Your task to perform on an android device: turn on notifications settings in the gmail app Image 0: 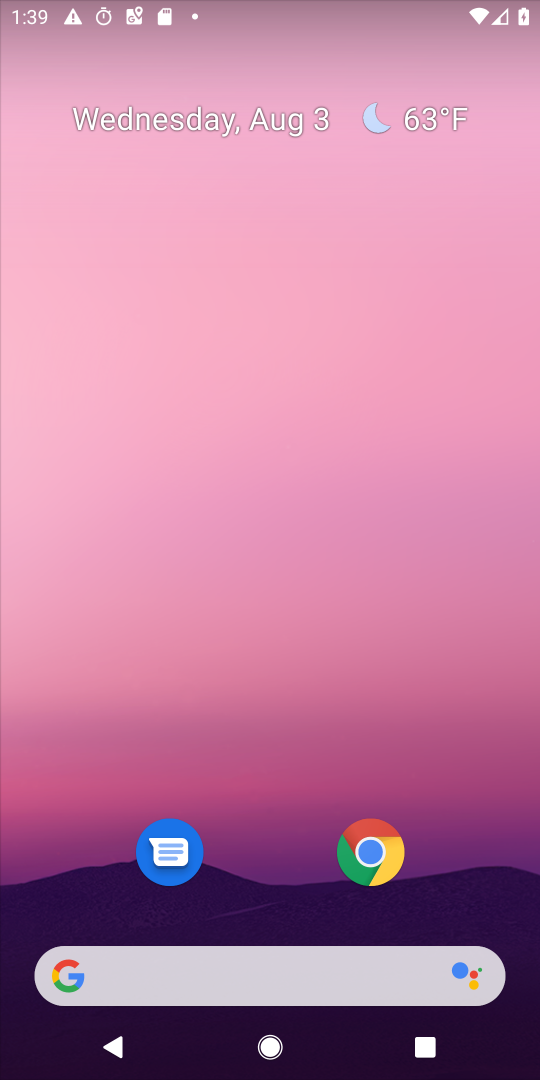
Step 0: drag from (475, 806) to (282, 57)
Your task to perform on an android device: turn on notifications settings in the gmail app Image 1: 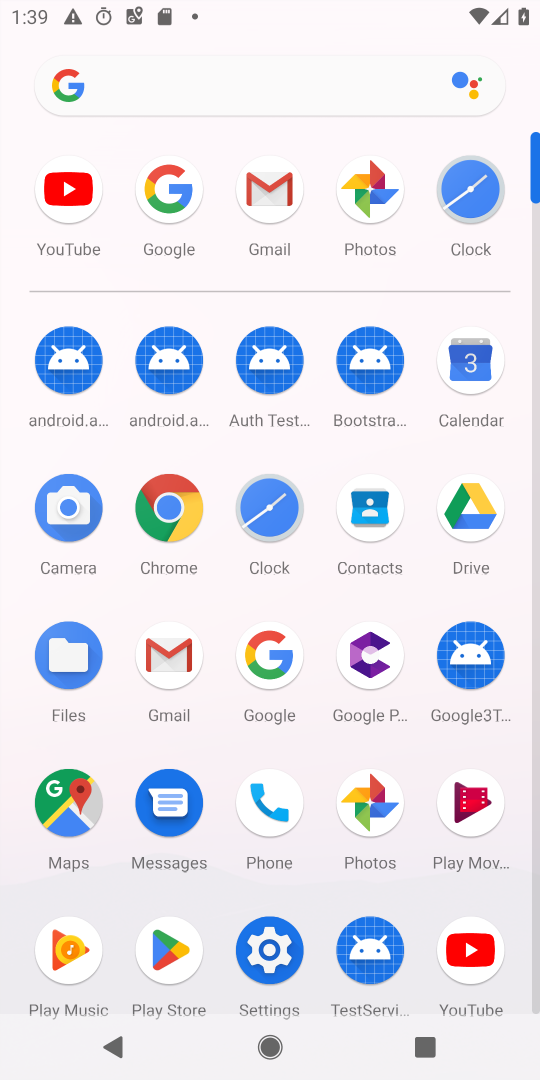
Step 1: click (178, 662)
Your task to perform on an android device: turn on notifications settings in the gmail app Image 2: 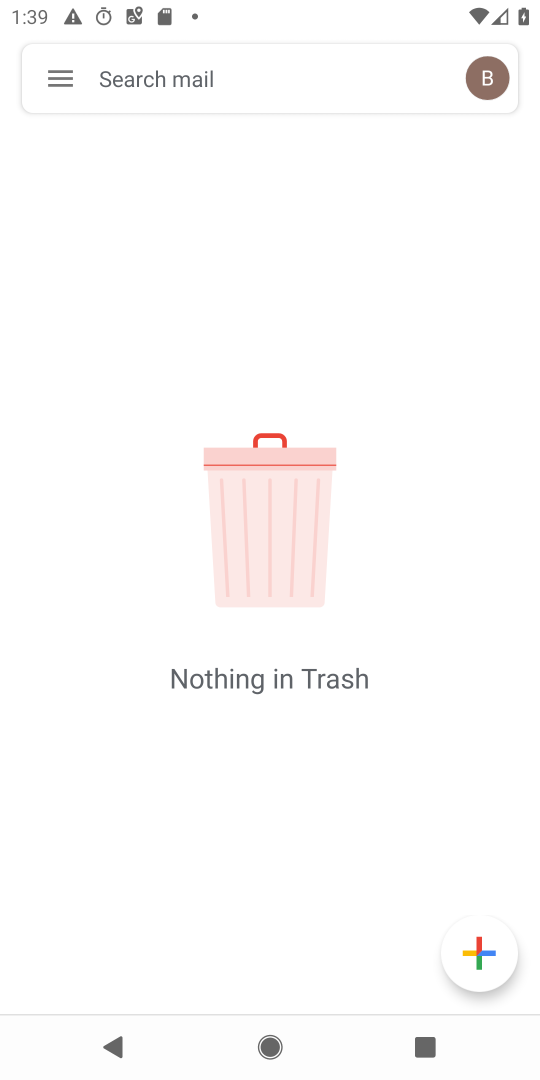
Step 2: click (41, 84)
Your task to perform on an android device: turn on notifications settings in the gmail app Image 3: 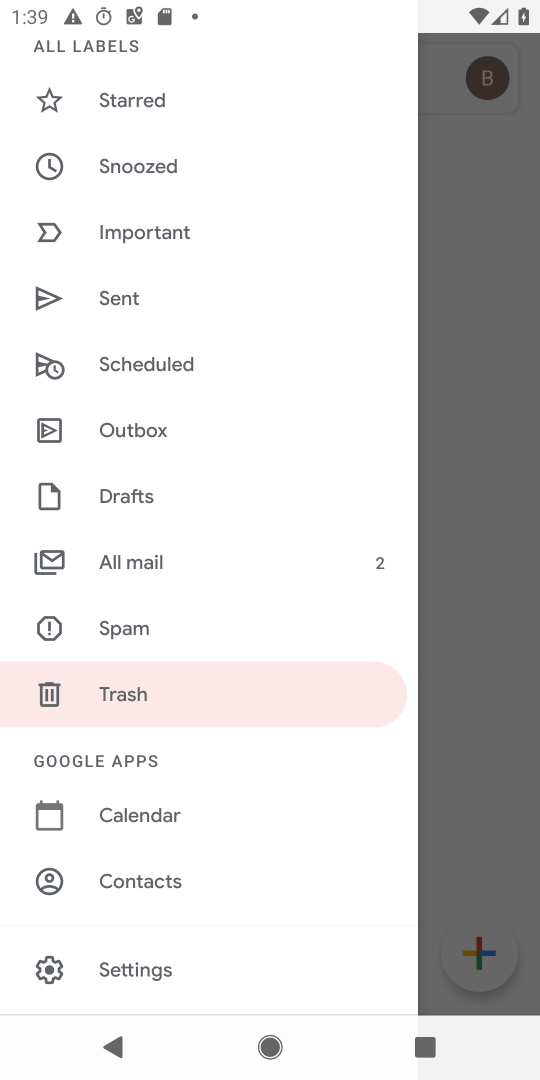
Step 3: click (149, 980)
Your task to perform on an android device: turn on notifications settings in the gmail app Image 4: 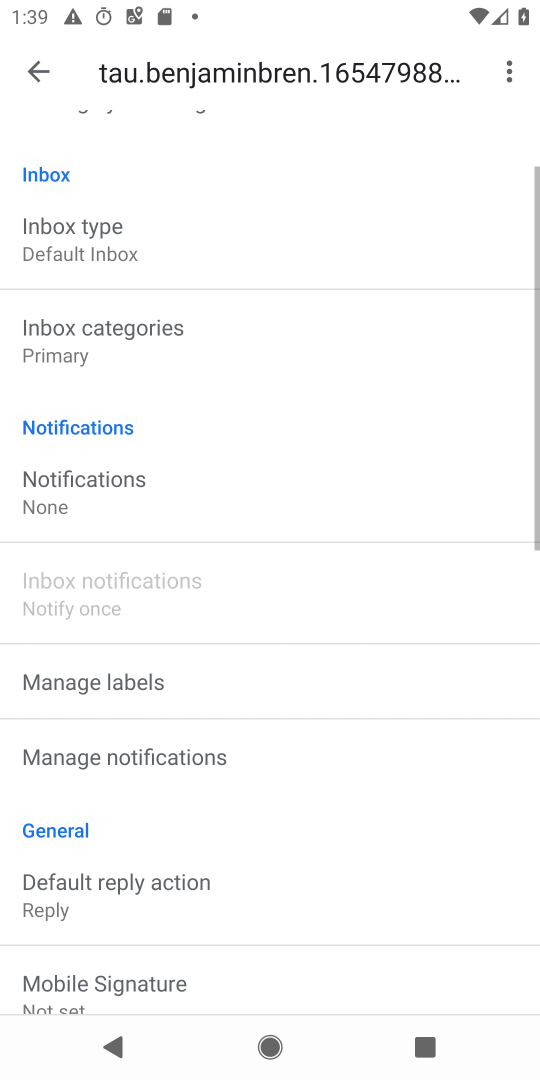
Step 4: click (58, 512)
Your task to perform on an android device: turn on notifications settings in the gmail app Image 5: 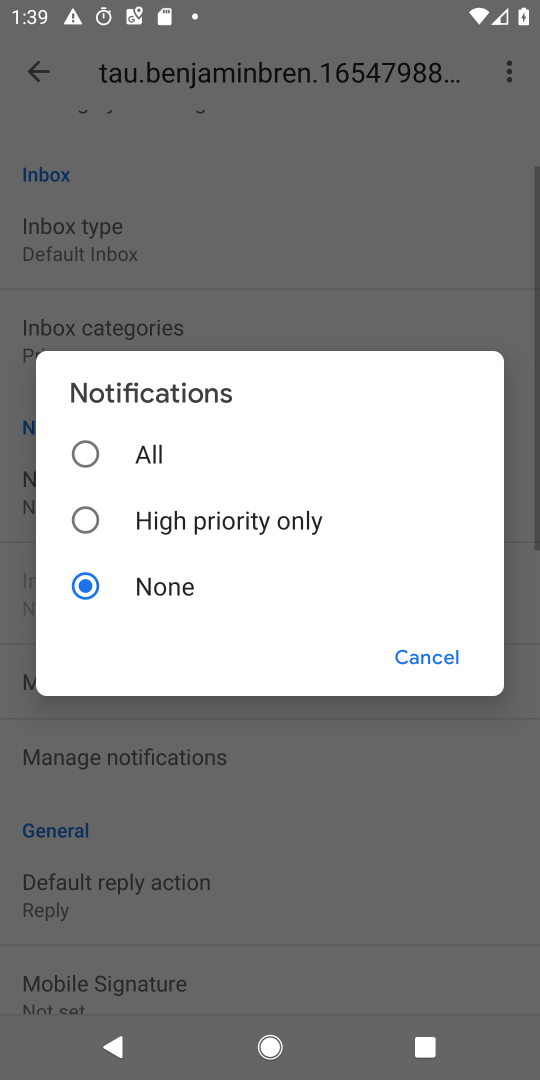
Step 5: click (106, 456)
Your task to perform on an android device: turn on notifications settings in the gmail app Image 6: 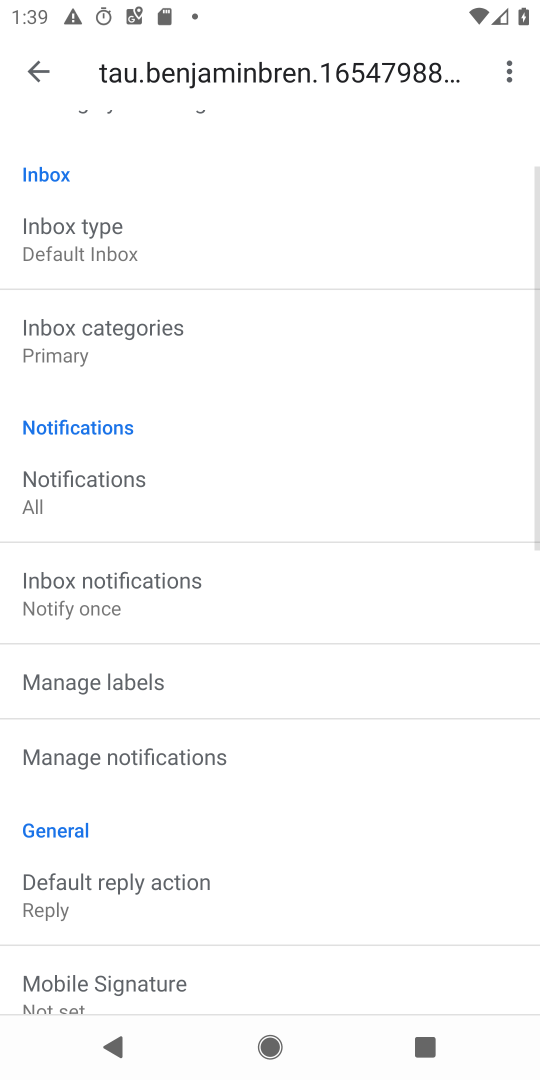
Step 6: task complete